Your task to perform on an android device: clear history in the chrome app Image 0: 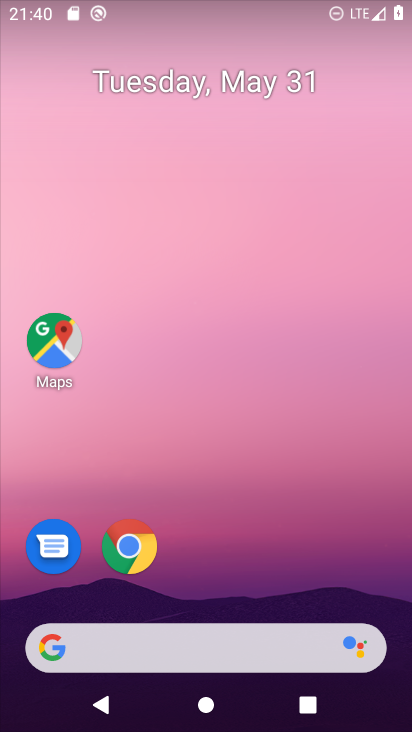
Step 0: click (126, 541)
Your task to perform on an android device: clear history in the chrome app Image 1: 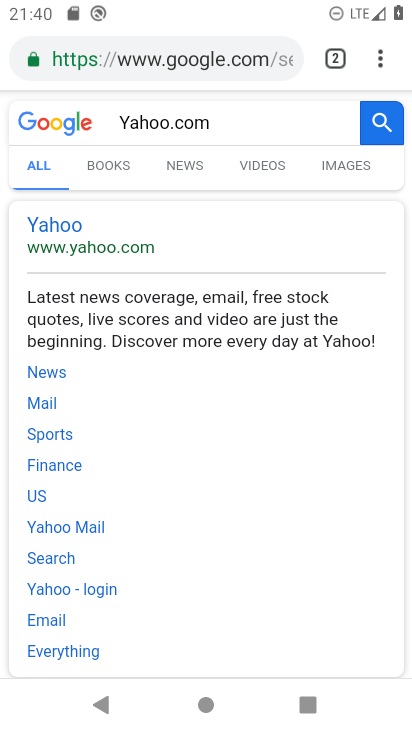
Step 1: click (377, 51)
Your task to perform on an android device: clear history in the chrome app Image 2: 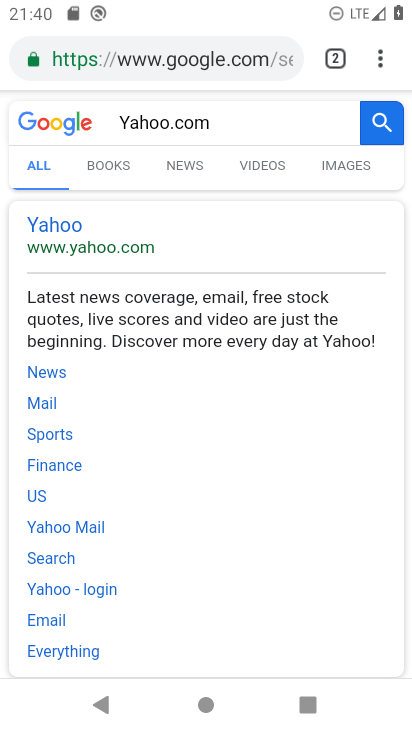
Step 2: click (377, 52)
Your task to perform on an android device: clear history in the chrome app Image 3: 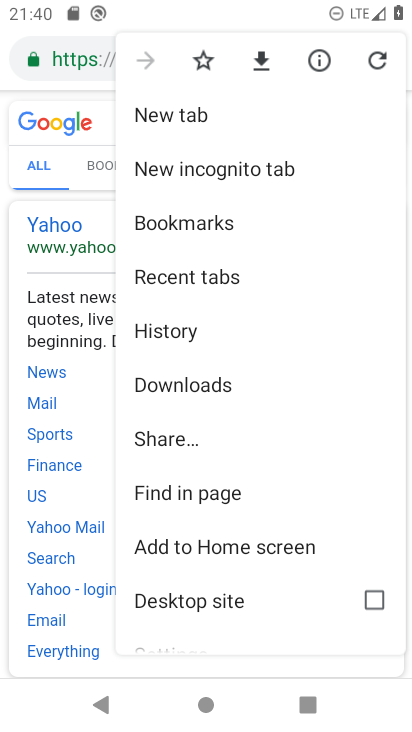
Step 3: click (181, 334)
Your task to perform on an android device: clear history in the chrome app Image 4: 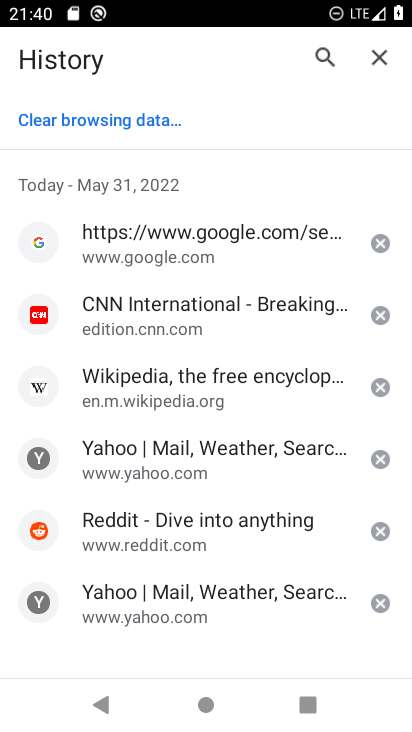
Step 4: click (152, 123)
Your task to perform on an android device: clear history in the chrome app Image 5: 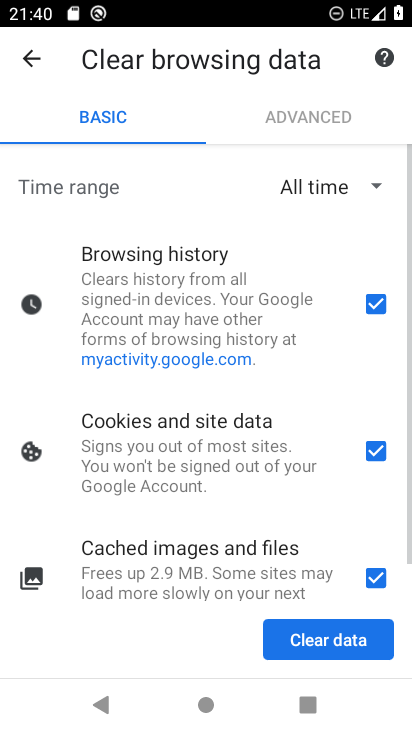
Step 5: click (322, 639)
Your task to perform on an android device: clear history in the chrome app Image 6: 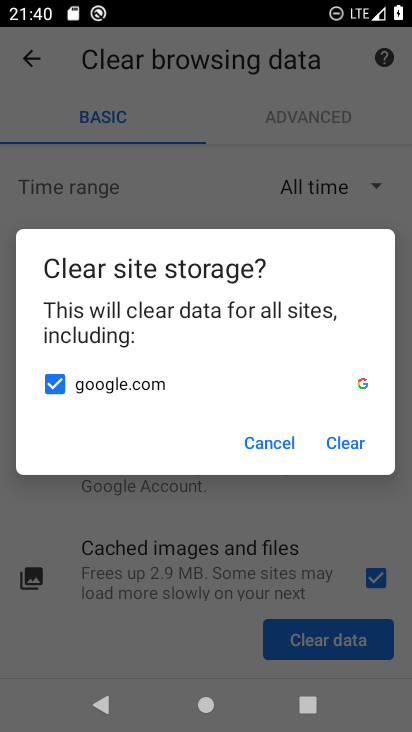
Step 6: click (338, 446)
Your task to perform on an android device: clear history in the chrome app Image 7: 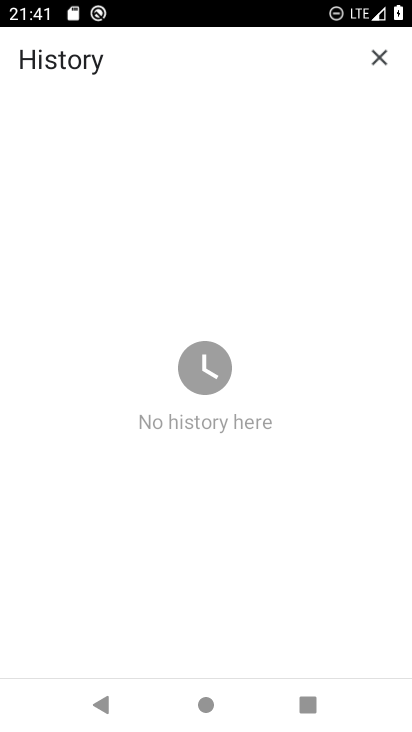
Step 7: task complete